Your task to perform on an android device: Go to accessibility settings Image 0: 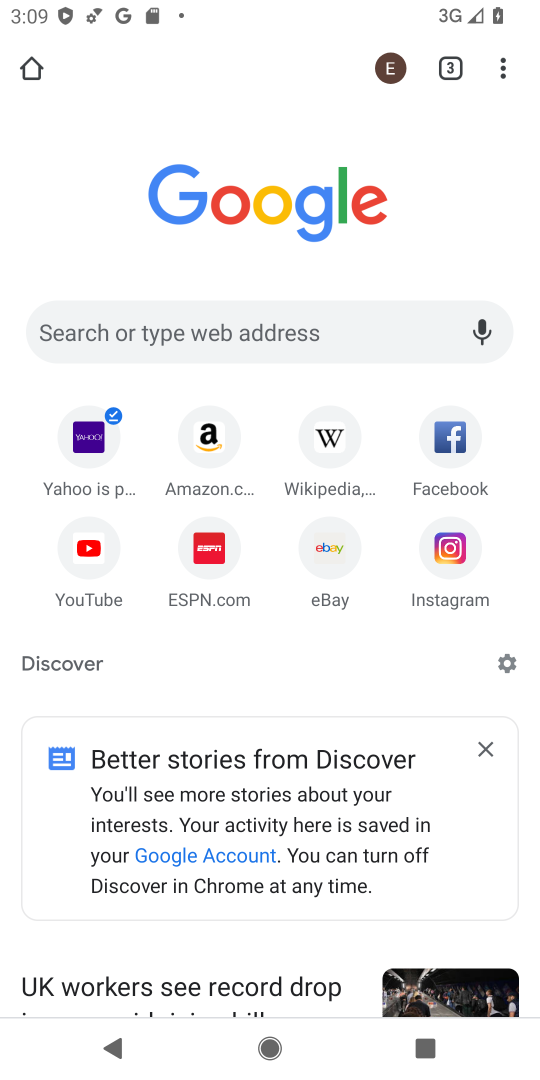
Step 0: press back button
Your task to perform on an android device: Go to accessibility settings Image 1: 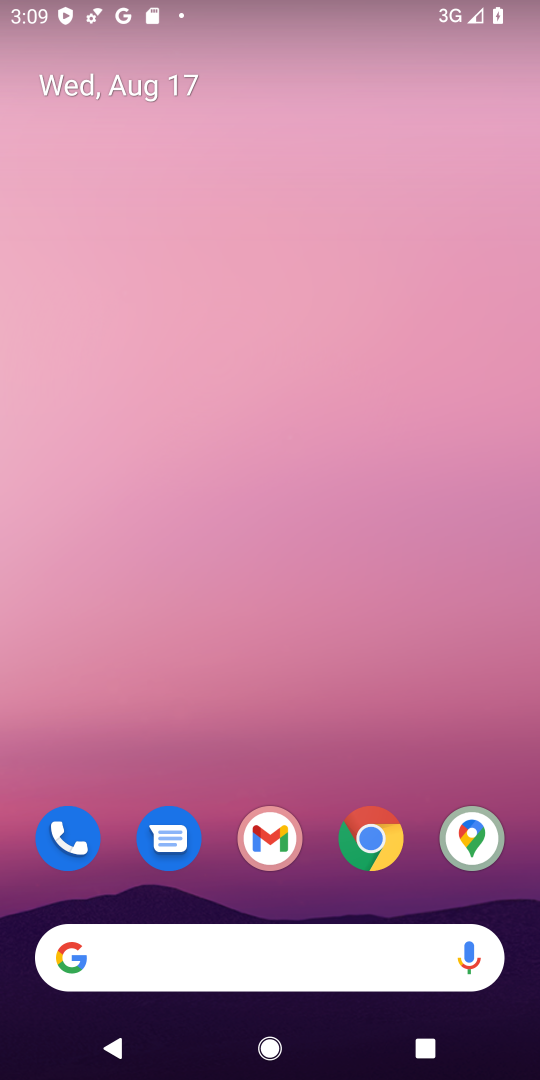
Step 1: drag from (312, 834) to (305, 171)
Your task to perform on an android device: Go to accessibility settings Image 2: 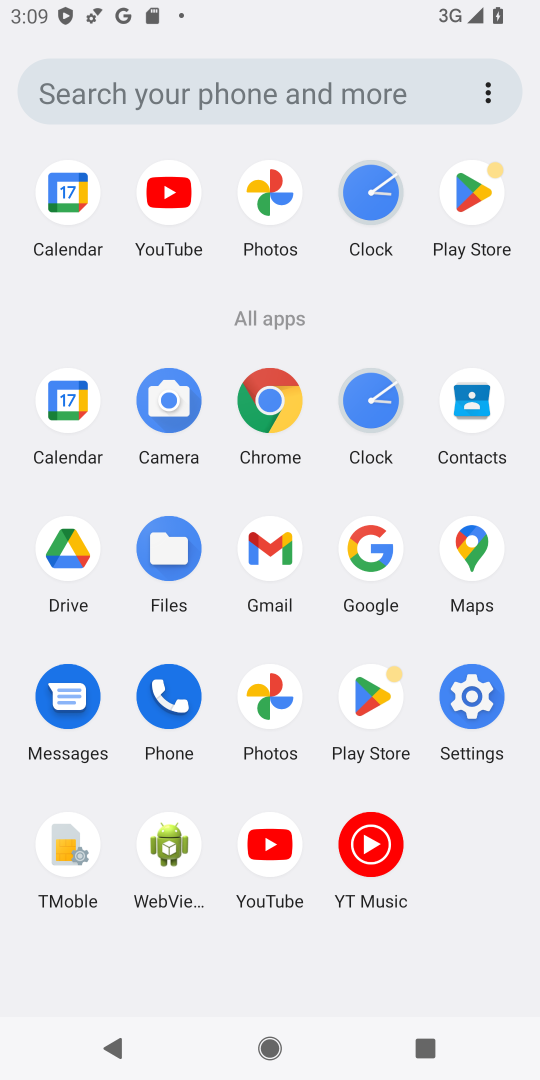
Step 2: click (476, 681)
Your task to perform on an android device: Go to accessibility settings Image 3: 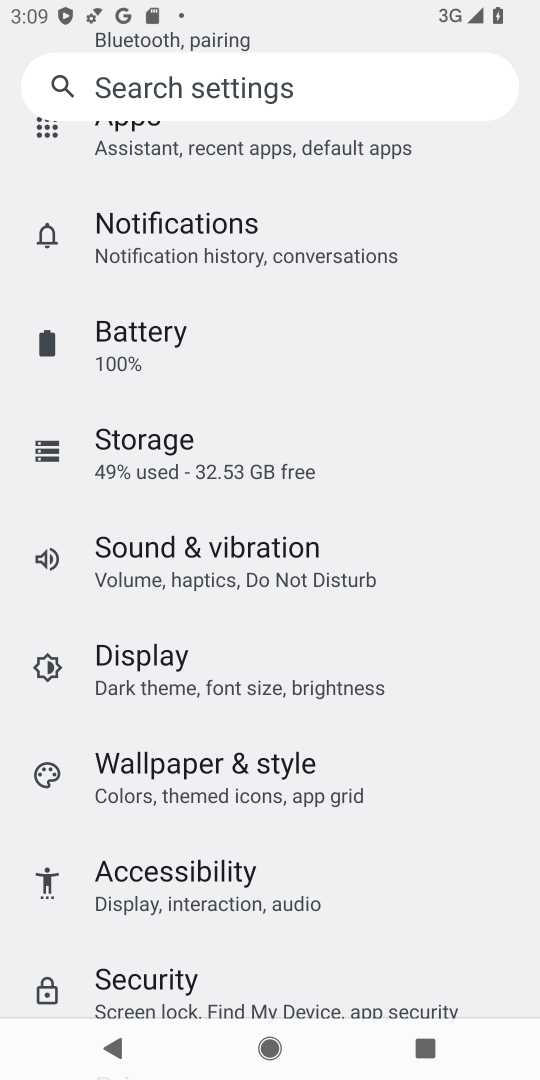
Step 3: click (272, 873)
Your task to perform on an android device: Go to accessibility settings Image 4: 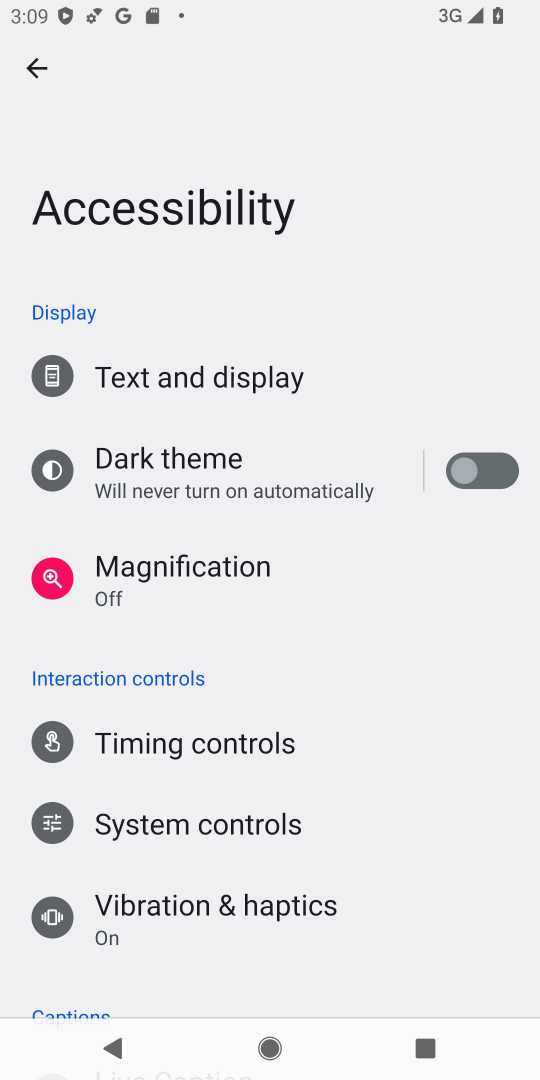
Step 4: task complete